Your task to perform on an android device: Go to ESPN.com Image 0: 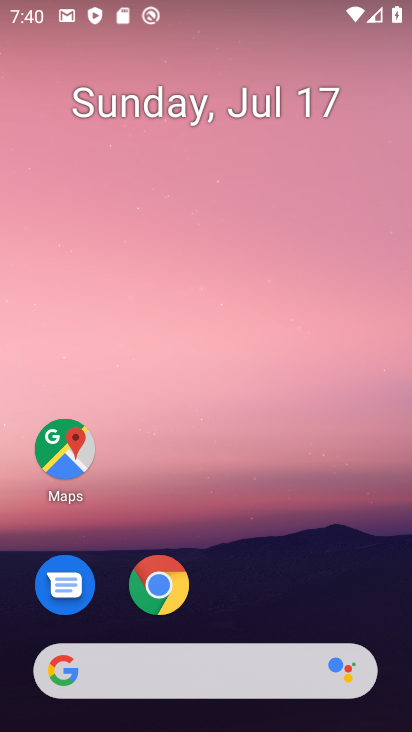
Step 0: click (166, 587)
Your task to perform on an android device: Go to ESPN.com Image 1: 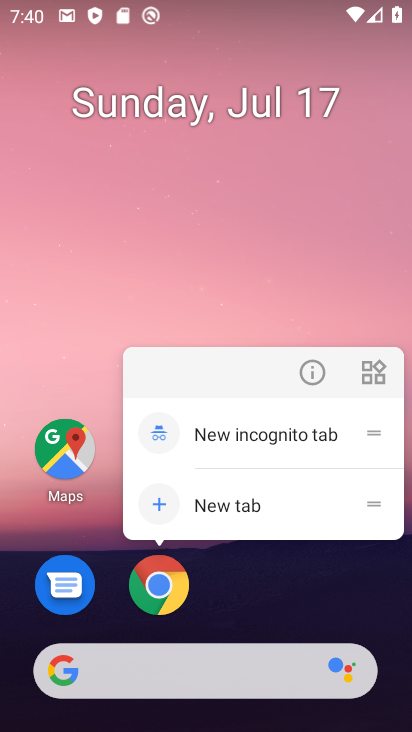
Step 1: click (166, 587)
Your task to perform on an android device: Go to ESPN.com Image 2: 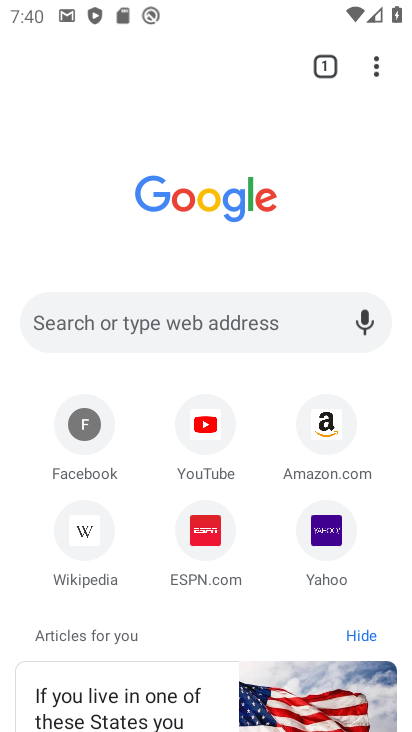
Step 2: click (206, 534)
Your task to perform on an android device: Go to ESPN.com Image 3: 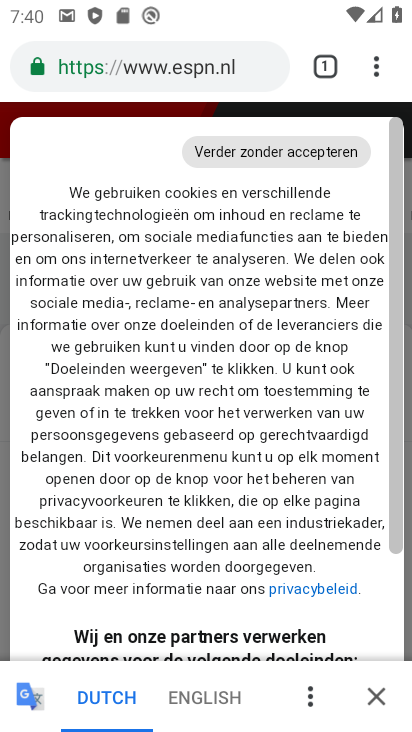
Step 3: click (212, 698)
Your task to perform on an android device: Go to ESPN.com Image 4: 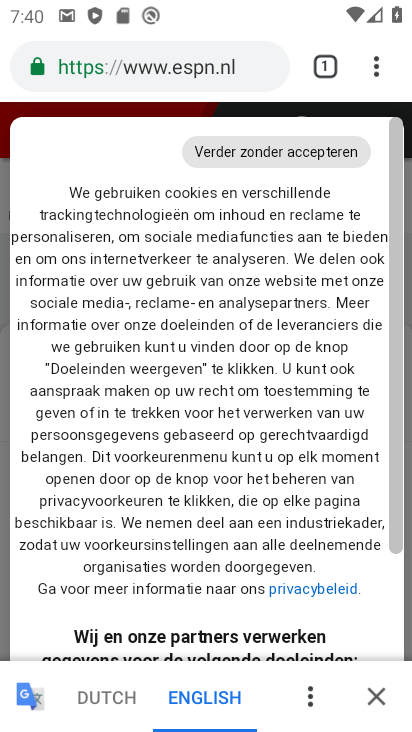
Step 4: drag from (216, 541) to (282, 92)
Your task to perform on an android device: Go to ESPN.com Image 5: 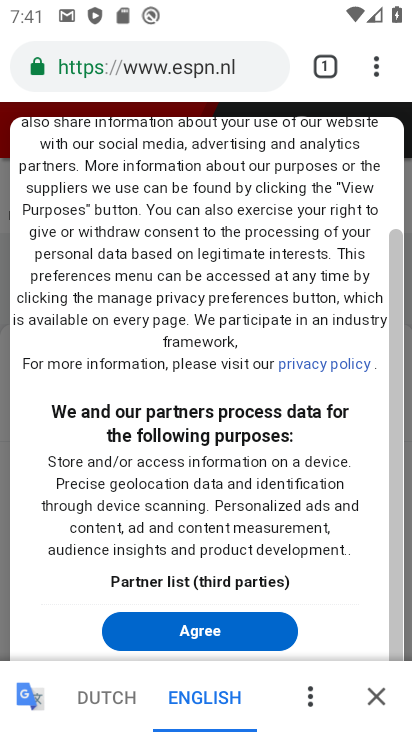
Step 5: click (210, 630)
Your task to perform on an android device: Go to ESPN.com Image 6: 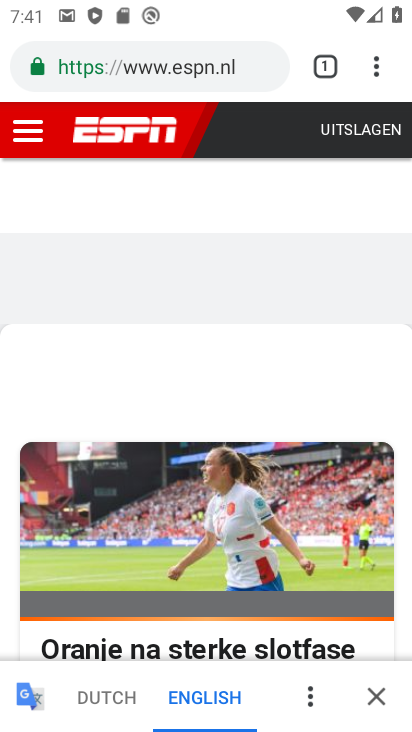
Step 6: task complete